Your task to perform on an android device: Go to Yahoo.com Image 0: 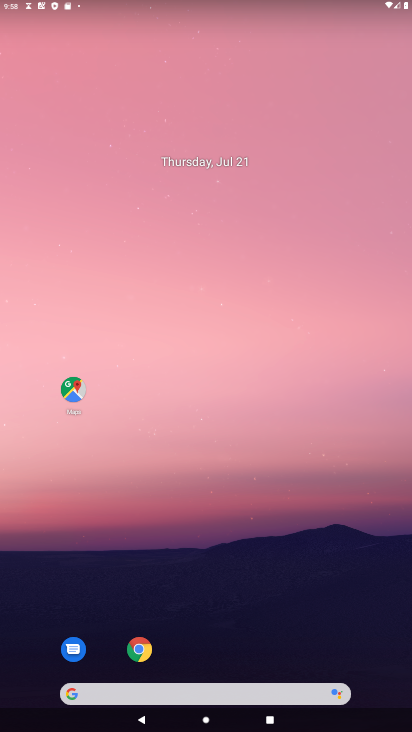
Step 0: click (144, 649)
Your task to perform on an android device: Go to Yahoo.com Image 1: 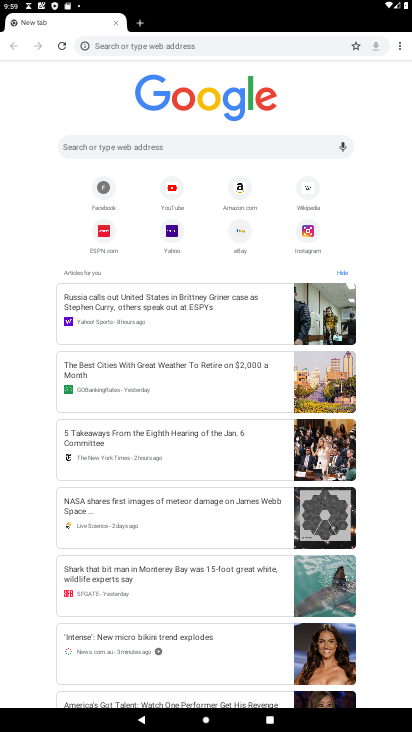
Step 1: click (176, 233)
Your task to perform on an android device: Go to Yahoo.com Image 2: 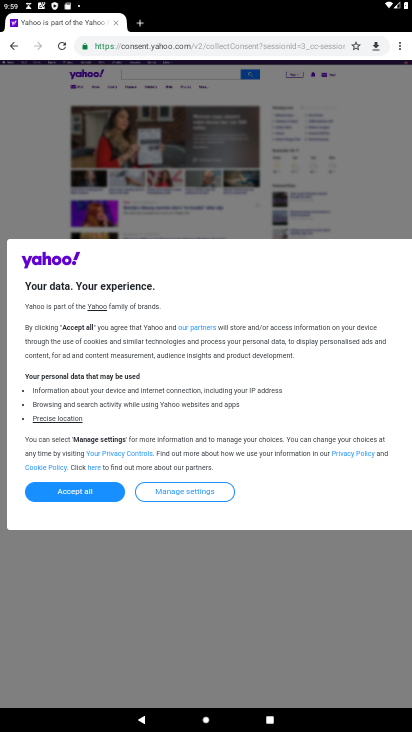
Step 2: click (370, 128)
Your task to perform on an android device: Go to Yahoo.com Image 3: 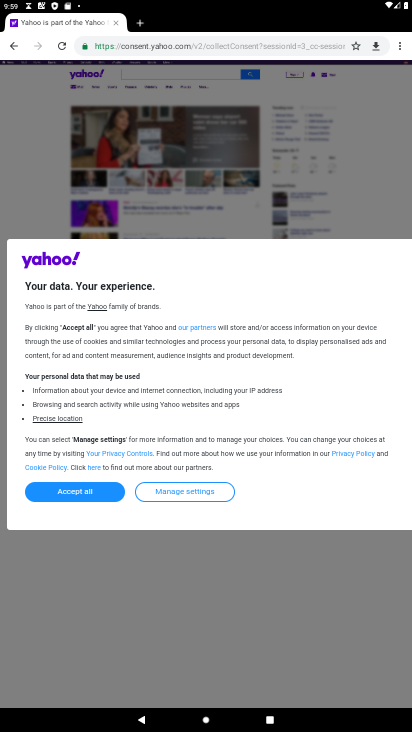
Step 3: task complete